Your task to perform on an android device: Do I have any events today? Image 0: 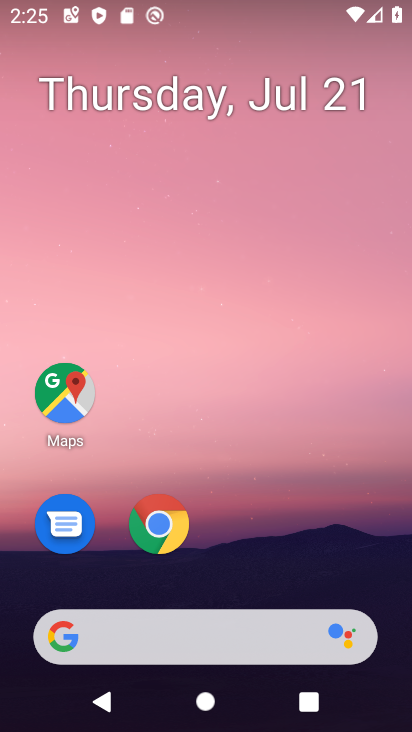
Step 0: drag from (289, 534) to (296, 34)
Your task to perform on an android device: Do I have any events today? Image 1: 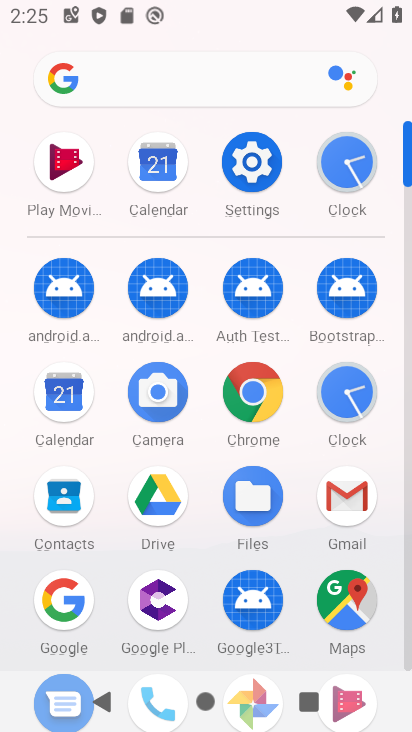
Step 1: click (168, 165)
Your task to perform on an android device: Do I have any events today? Image 2: 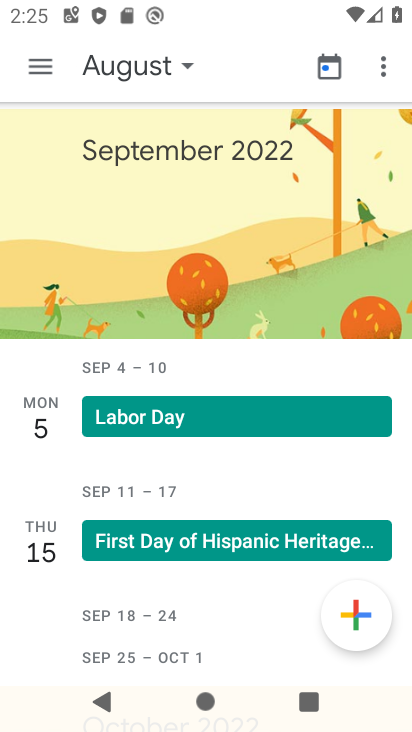
Step 2: drag from (133, 197) to (174, 617)
Your task to perform on an android device: Do I have any events today? Image 3: 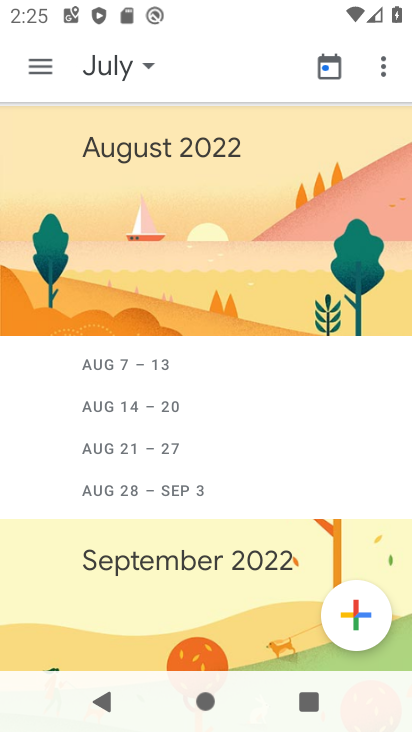
Step 3: drag from (213, 204) to (240, 604)
Your task to perform on an android device: Do I have any events today? Image 4: 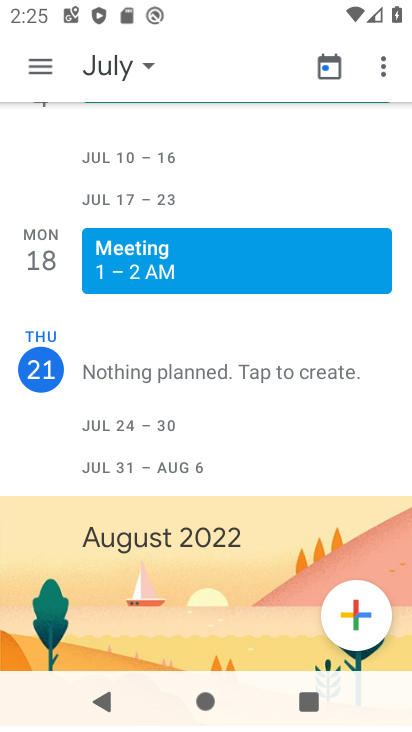
Step 4: click (39, 374)
Your task to perform on an android device: Do I have any events today? Image 5: 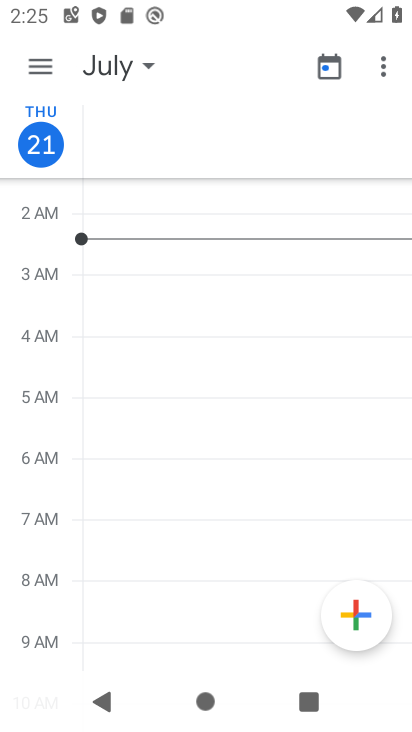
Step 5: task complete